Your task to perform on an android device: see tabs open on other devices in the chrome app Image 0: 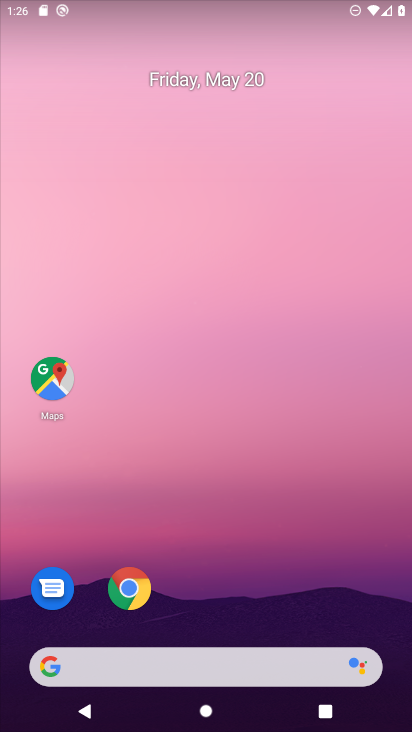
Step 0: click (128, 588)
Your task to perform on an android device: see tabs open on other devices in the chrome app Image 1: 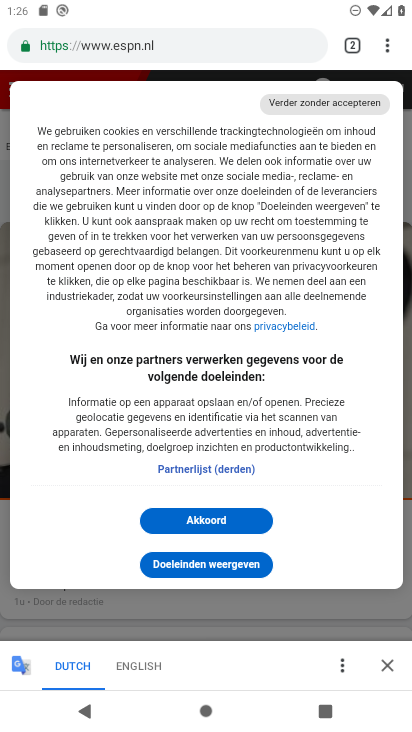
Step 1: click (383, 48)
Your task to perform on an android device: see tabs open on other devices in the chrome app Image 2: 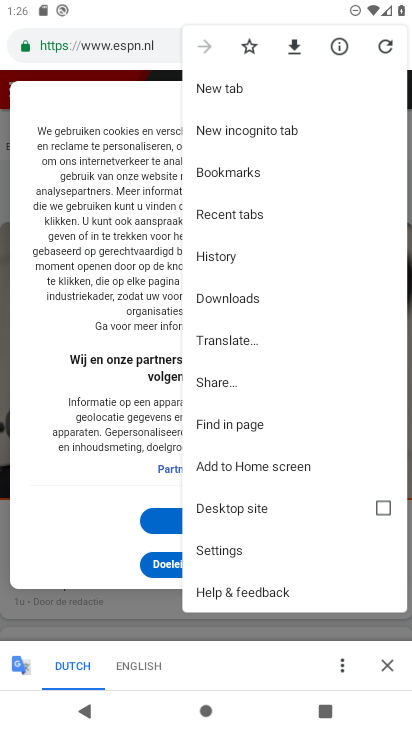
Step 2: click (220, 212)
Your task to perform on an android device: see tabs open on other devices in the chrome app Image 3: 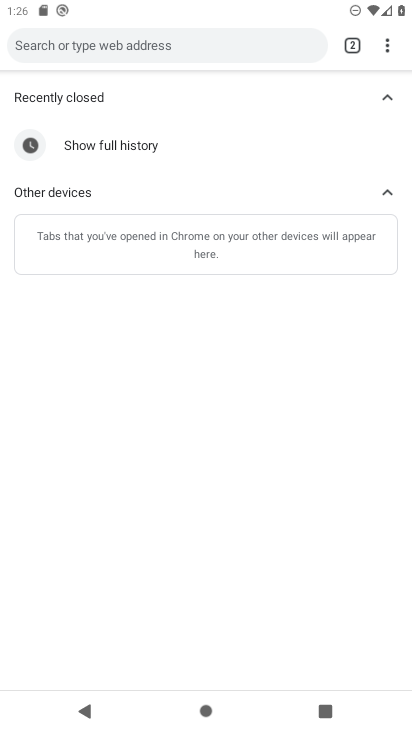
Step 3: task complete